Your task to perform on an android device: Open calendar and show me the second week of next month Image 0: 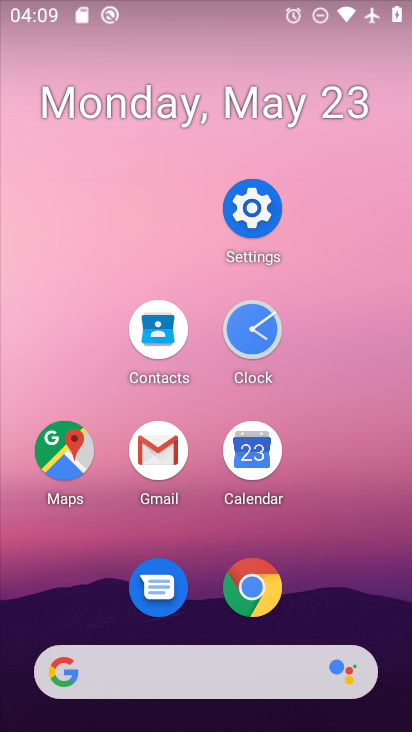
Step 0: click (247, 339)
Your task to perform on an android device: Open calendar and show me the second week of next month Image 1: 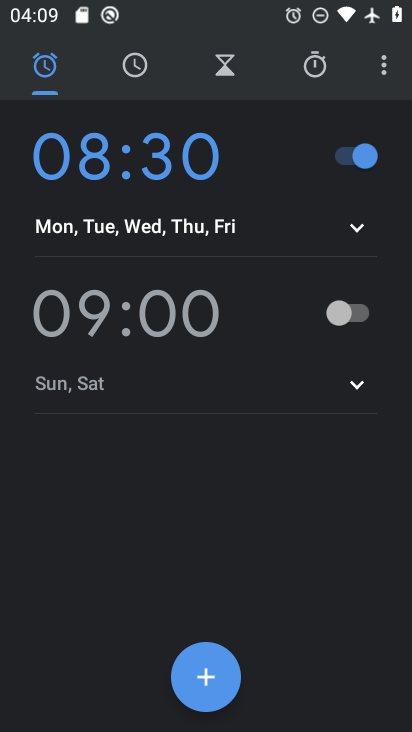
Step 1: press home button
Your task to perform on an android device: Open calendar and show me the second week of next month Image 2: 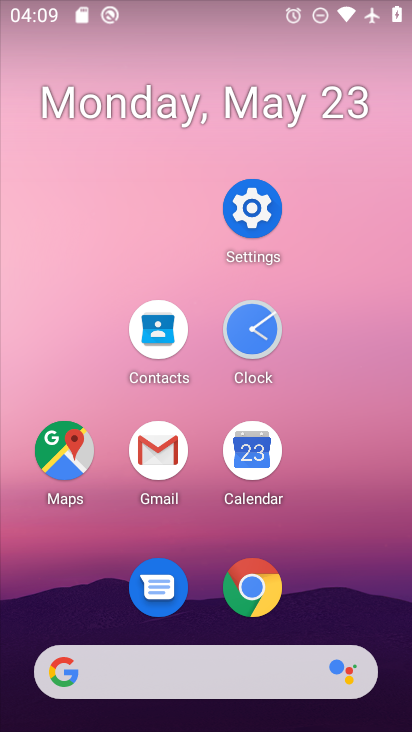
Step 2: click (271, 479)
Your task to perform on an android device: Open calendar and show me the second week of next month Image 3: 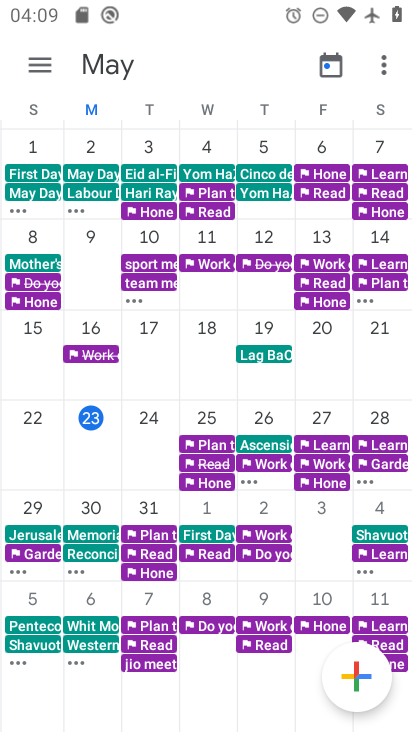
Step 3: click (127, 58)
Your task to perform on an android device: Open calendar and show me the second week of next month Image 4: 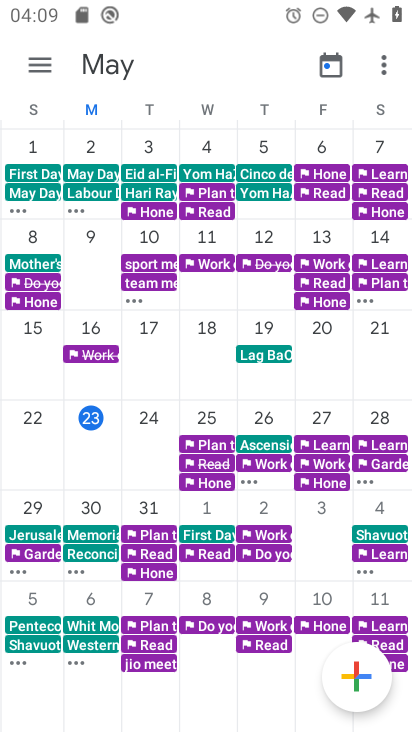
Step 4: click (29, 52)
Your task to perform on an android device: Open calendar and show me the second week of next month Image 5: 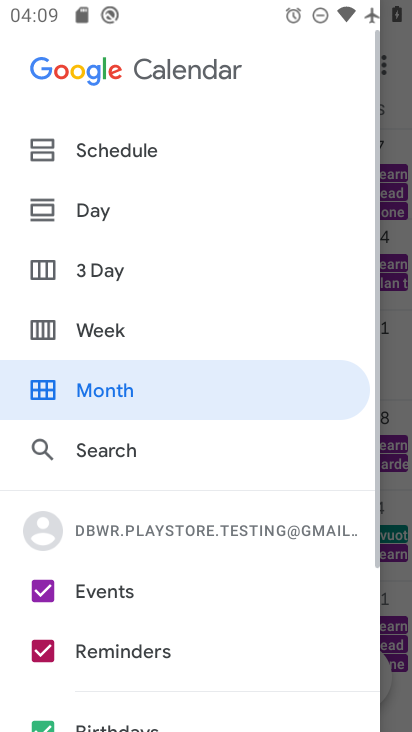
Step 5: click (53, 154)
Your task to perform on an android device: Open calendar and show me the second week of next month Image 6: 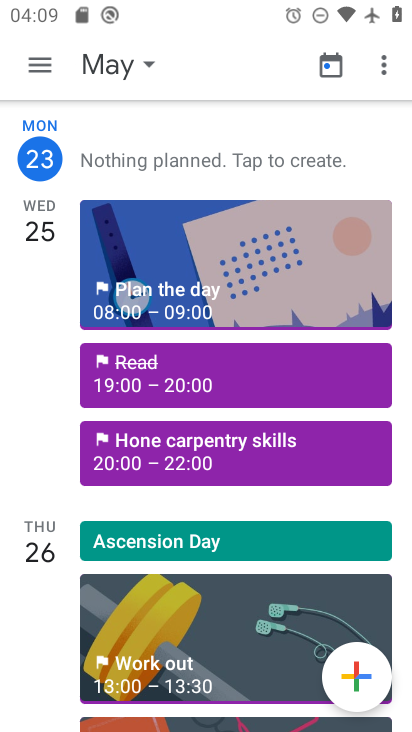
Step 6: click (143, 63)
Your task to perform on an android device: Open calendar and show me the second week of next month Image 7: 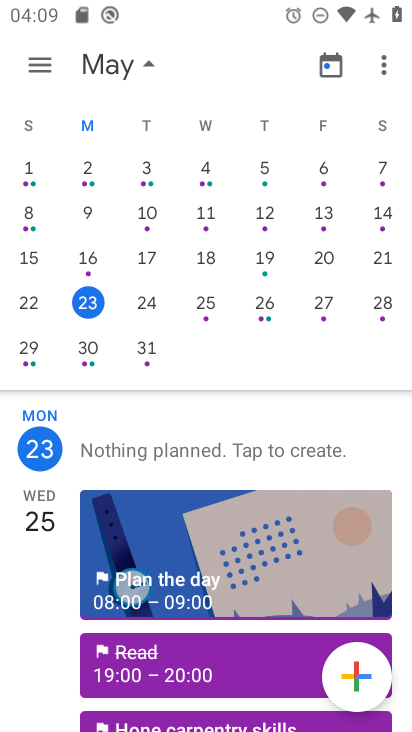
Step 7: drag from (392, 285) to (9, 256)
Your task to perform on an android device: Open calendar and show me the second week of next month Image 8: 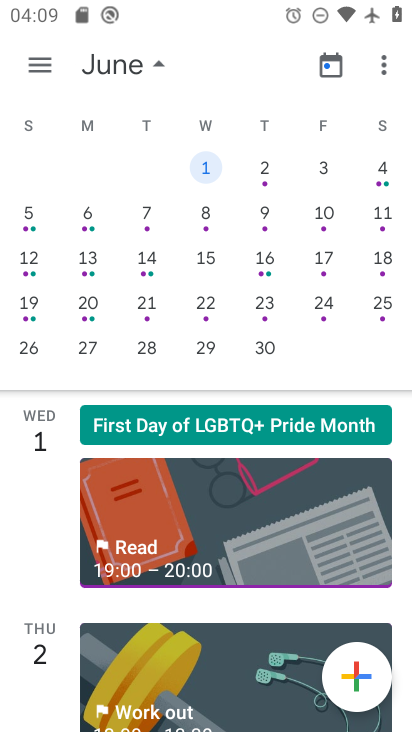
Step 8: click (164, 266)
Your task to perform on an android device: Open calendar and show me the second week of next month Image 9: 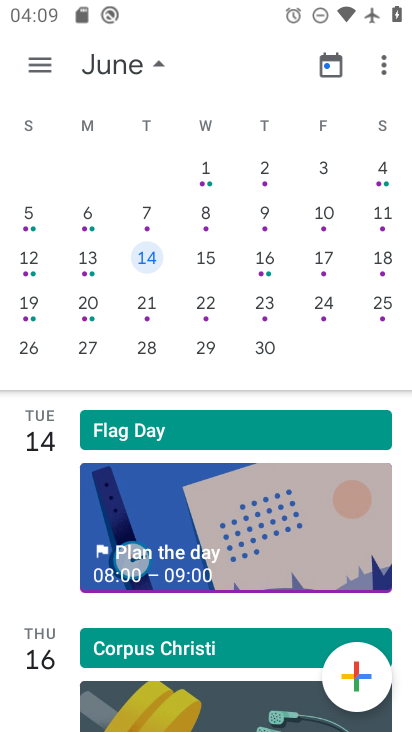
Step 9: task complete